Your task to perform on an android device: Search for seafood restaurants on Google Maps Image 0: 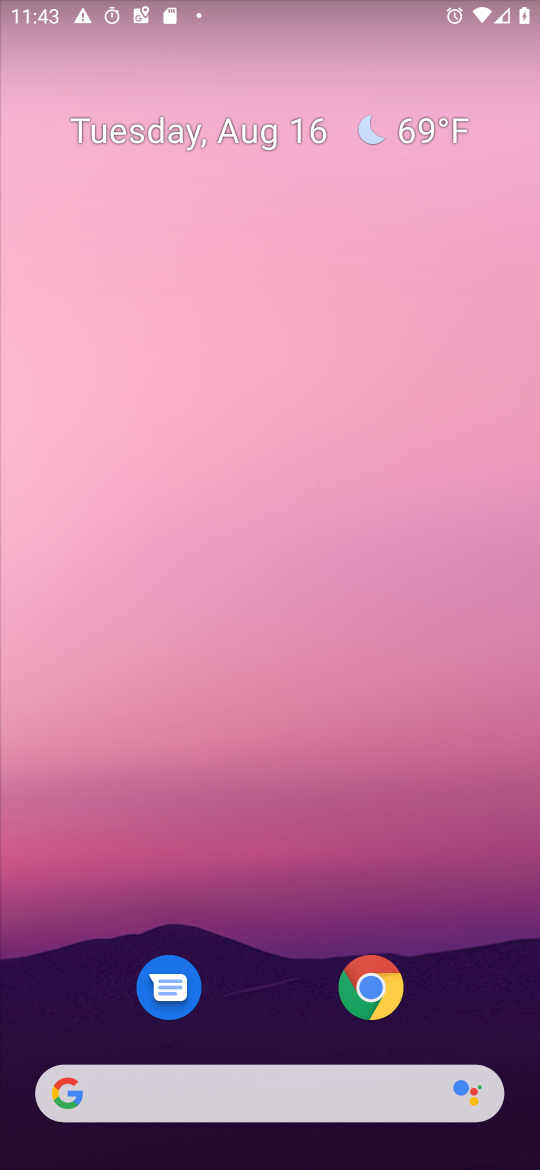
Step 0: drag from (44, 1156) to (230, 554)
Your task to perform on an android device: Search for seafood restaurants on Google Maps Image 1: 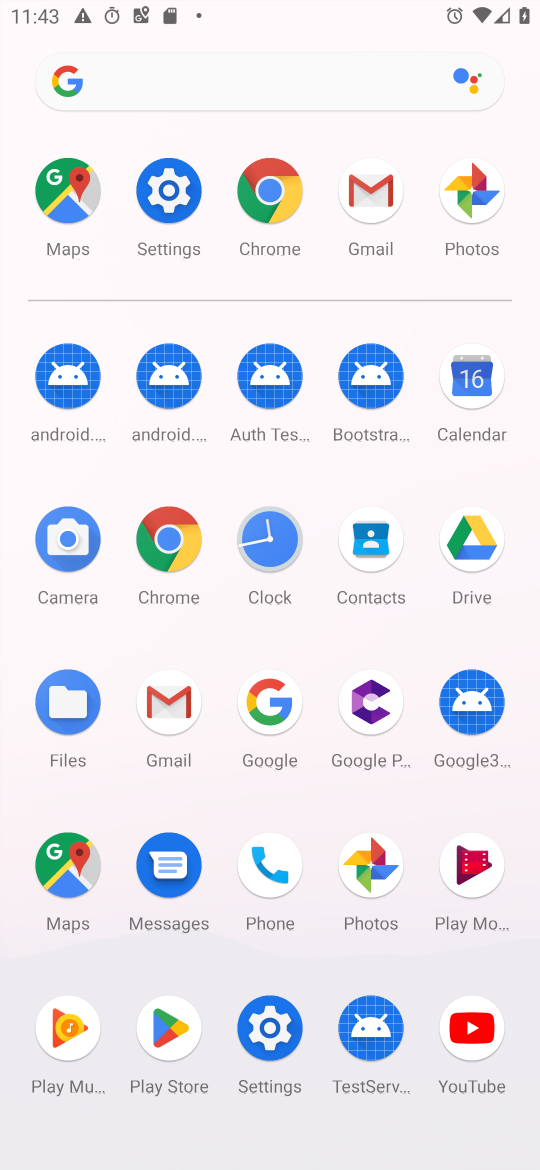
Step 1: click (63, 860)
Your task to perform on an android device: Search for seafood restaurants on Google Maps Image 2: 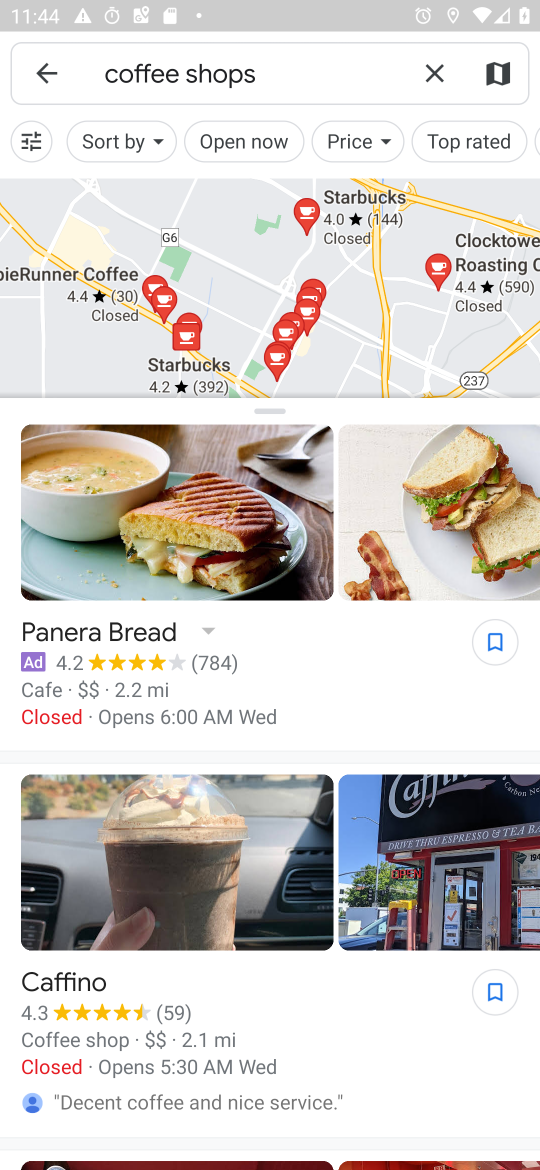
Step 2: click (434, 77)
Your task to perform on an android device: Search for seafood restaurants on Google Maps Image 3: 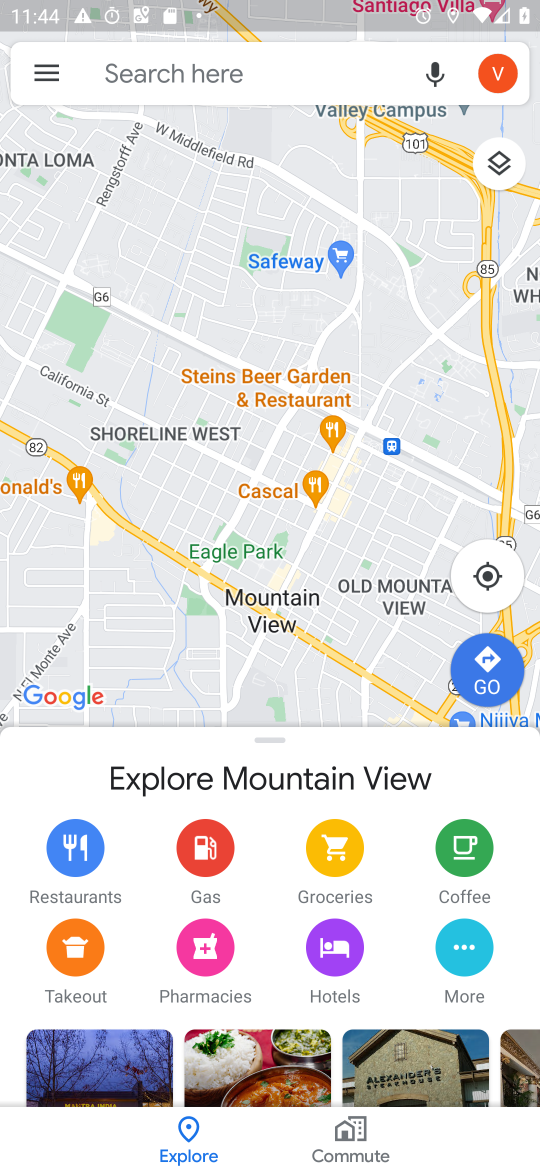
Step 3: click (151, 75)
Your task to perform on an android device: Search for seafood restaurants on Google Maps Image 4: 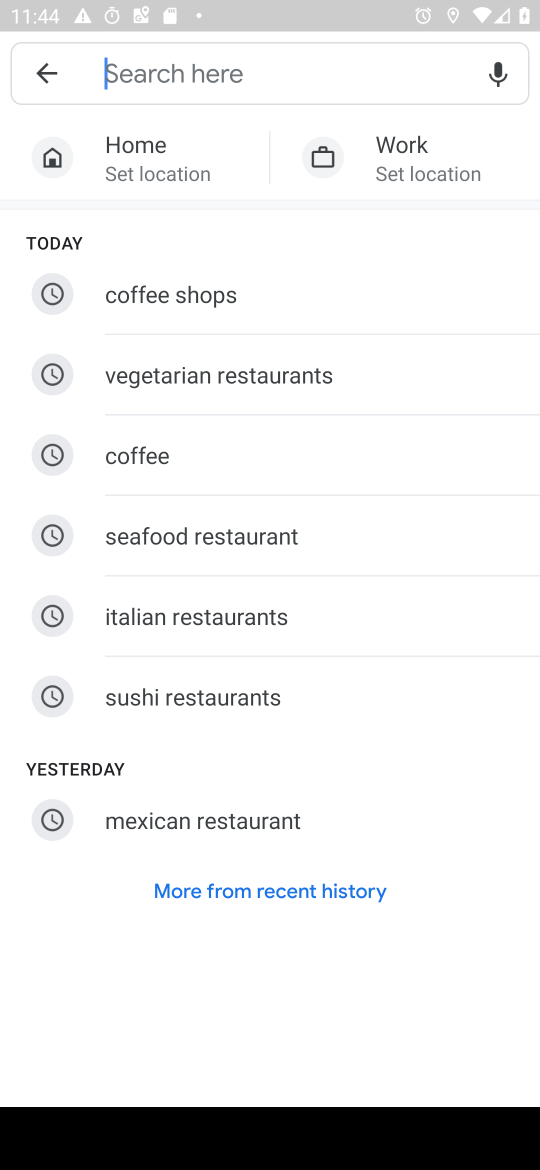
Step 4: type "seafood restaurants"
Your task to perform on an android device: Search for seafood restaurants on Google Maps Image 5: 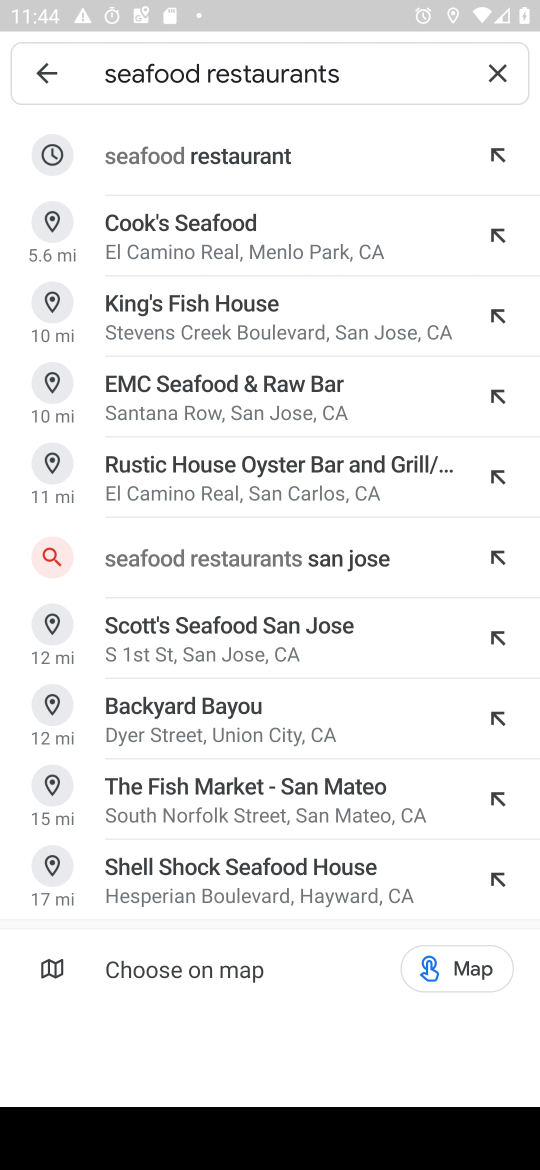
Step 5: click (247, 172)
Your task to perform on an android device: Search for seafood restaurants on Google Maps Image 6: 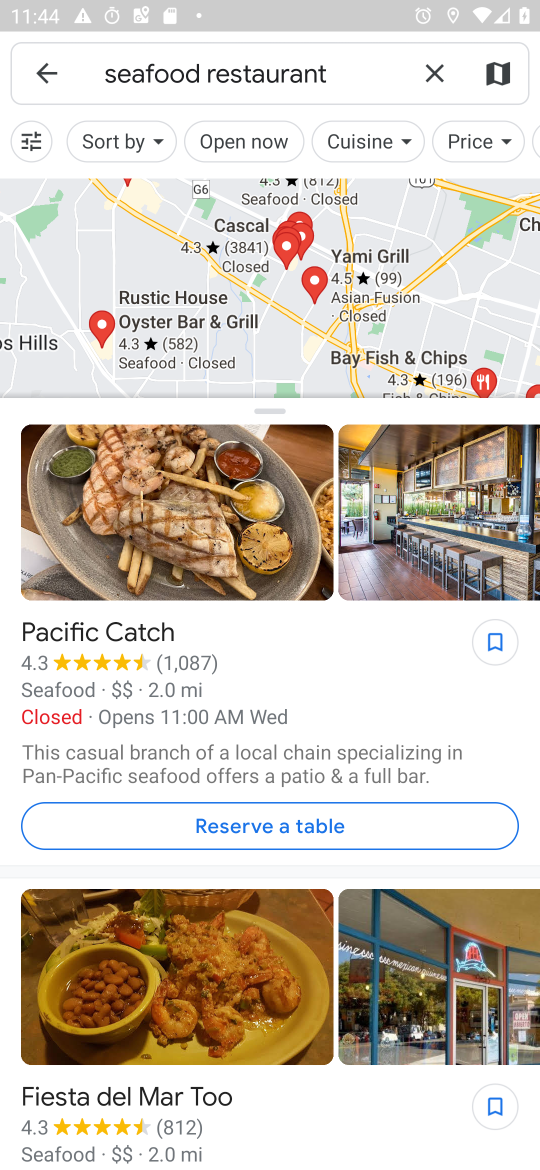
Step 6: task complete